Your task to perform on an android device: open sync settings in chrome Image 0: 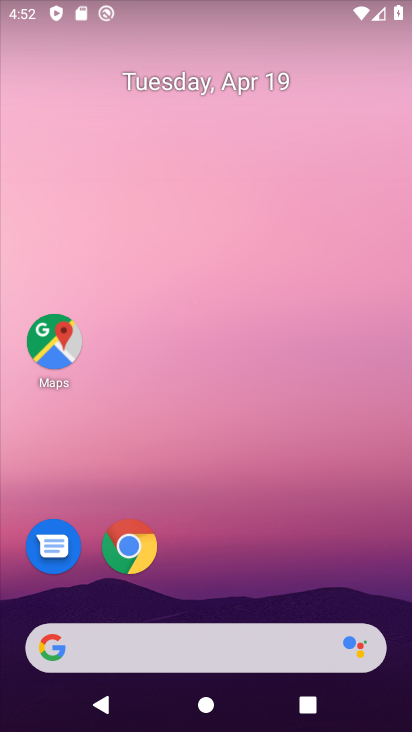
Step 0: drag from (312, 417) to (275, 6)
Your task to perform on an android device: open sync settings in chrome Image 1: 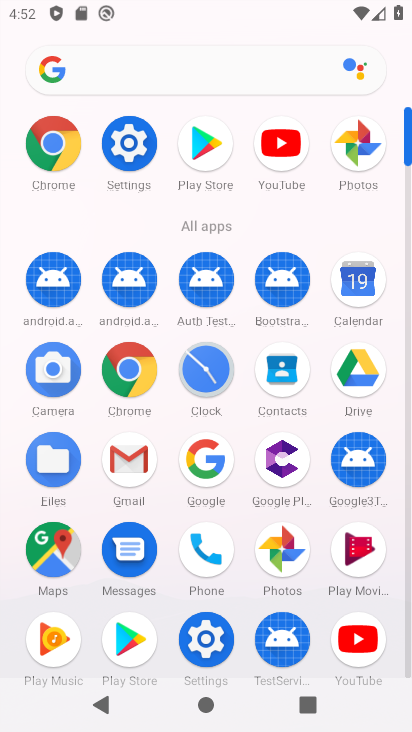
Step 1: click (56, 151)
Your task to perform on an android device: open sync settings in chrome Image 2: 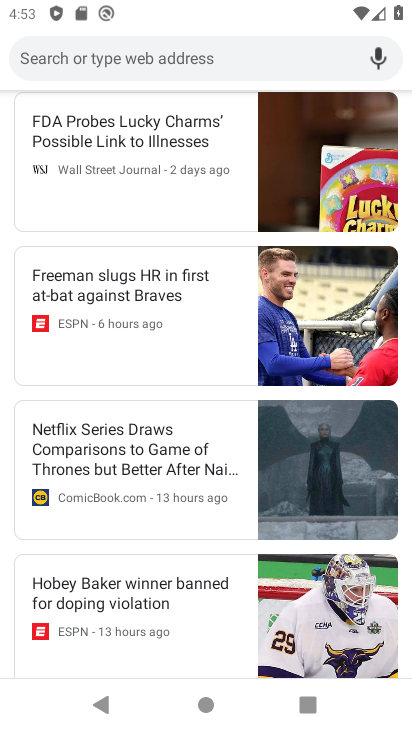
Step 2: drag from (191, 327) to (215, 595)
Your task to perform on an android device: open sync settings in chrome Image 3: 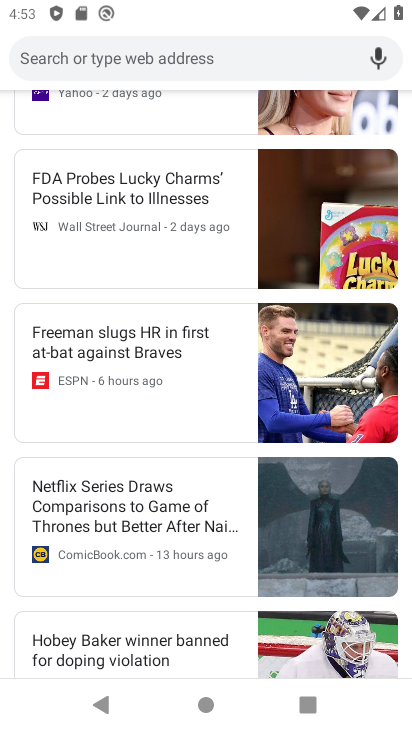
Step 3: drag from (113, 149) to (178, 541)
Your task to perform on an android device: open sync settings in chrome Image 4: 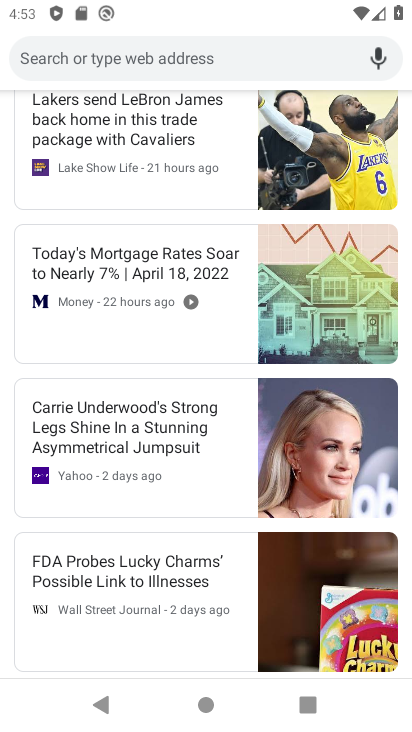
Step 4: drag from (77, 136) to (167, 552)
Your task to perform on an android device: open sync settings in chrome Image 5: 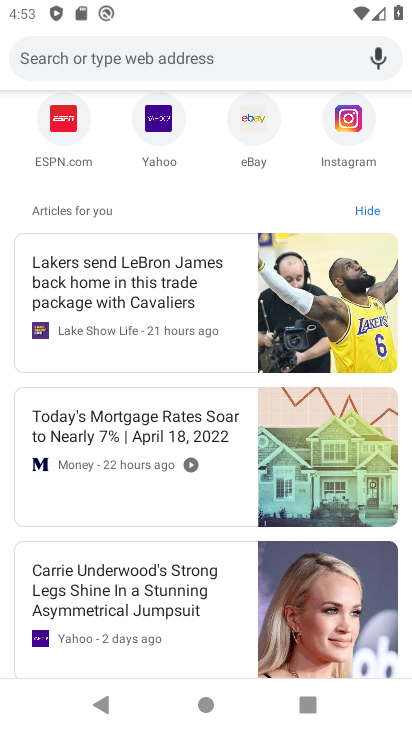
Step 5: drag from (135, 365) to (179, 519)
Your task to perform on an android device: open sync settings in chrome Image 6: 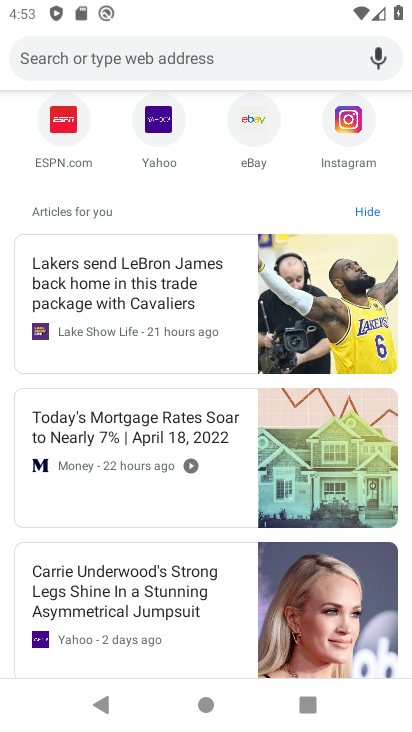
Step 6: drag from (178, 310) to (231, 537)
Your task to perform on an android device: open sync settings in chrome Image 7: 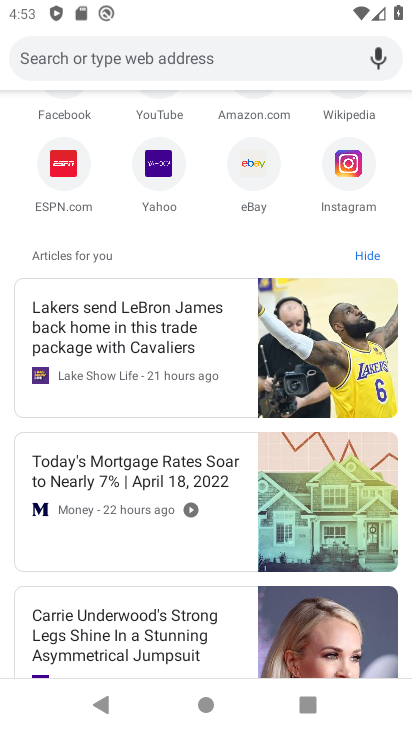
Step 7: drag from (168, 401) to (188, 581)
Your task to perform on an android device: open sync settings in chrome Image 8: 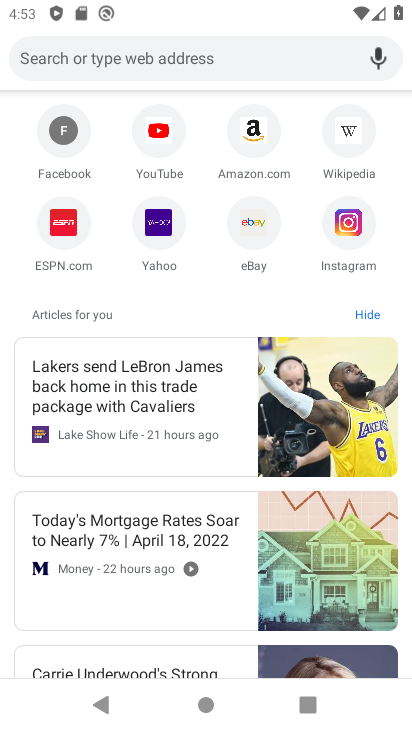
Step 8: drag from (134, 576) to (172, 247)
Your task to perform on an android device: open sync settings in chrome Image 9: 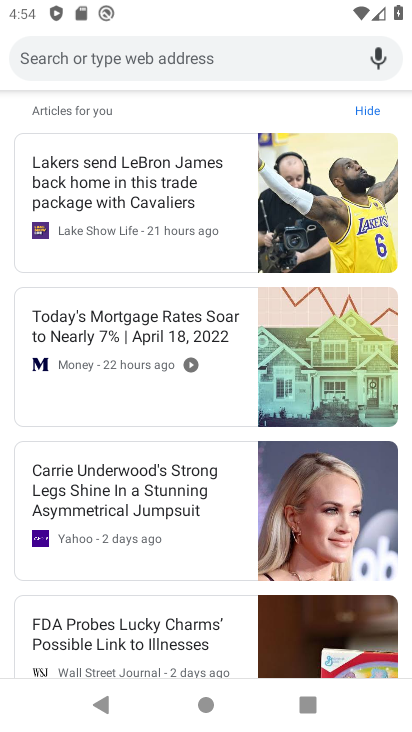
Step 9: drag from (148, 398) to (150, 205)
Your task to perform on an android device: open sync settings in chrome Image 10: 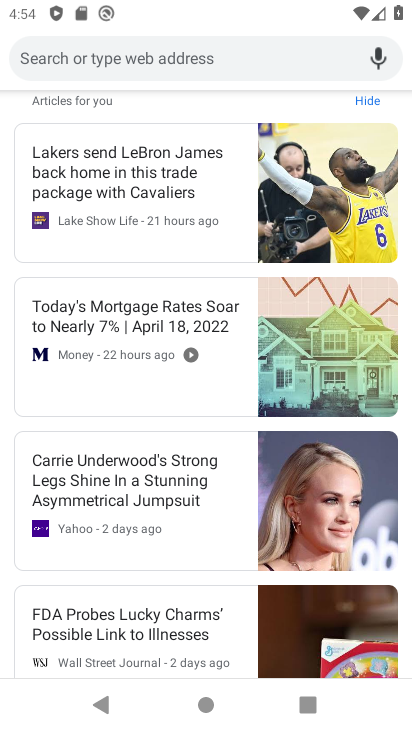
Step 10: drag from (211, 178) to (193, 579)
Your task to perform on an android device: open sync settings in chrome Image 11: 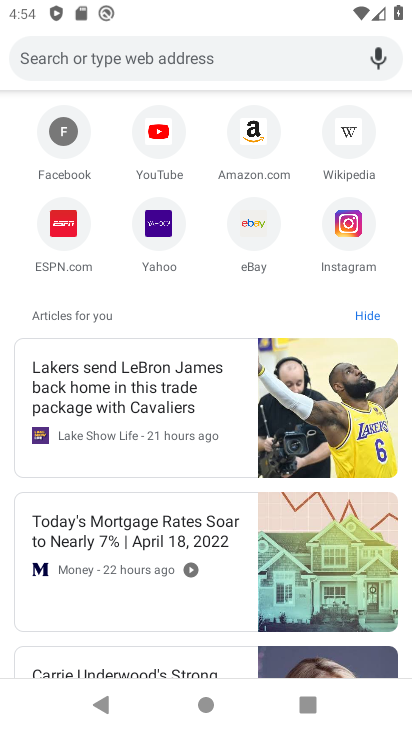
Step 11: drag from (153, 348) to (137, 644)
Your task to perform on an android device: open sync settings in chrome Image 12: 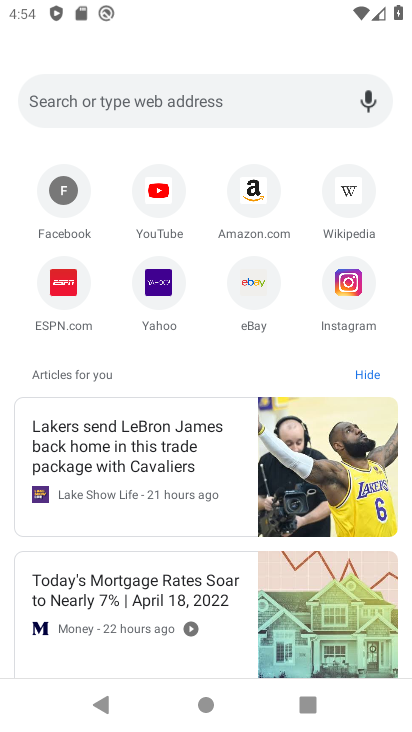
Step 12: drag from (175, 111) to (244, 616)
Your task to perform on an android device: open sync settings in chrome Image 13: 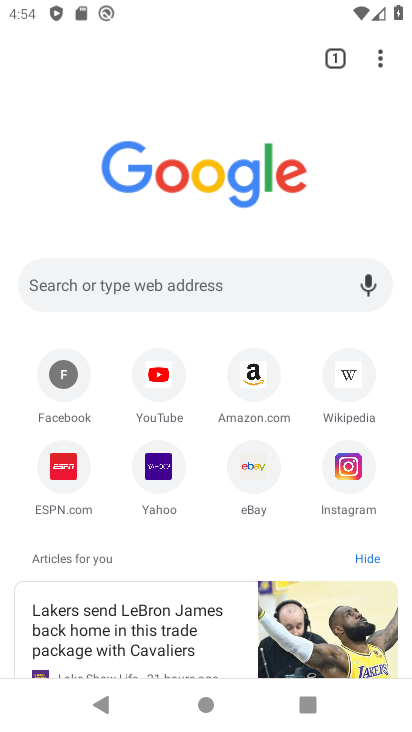
Step 13: click (380, 51)
Your task to perform on an android device: open sync settings in chrome Image 14: 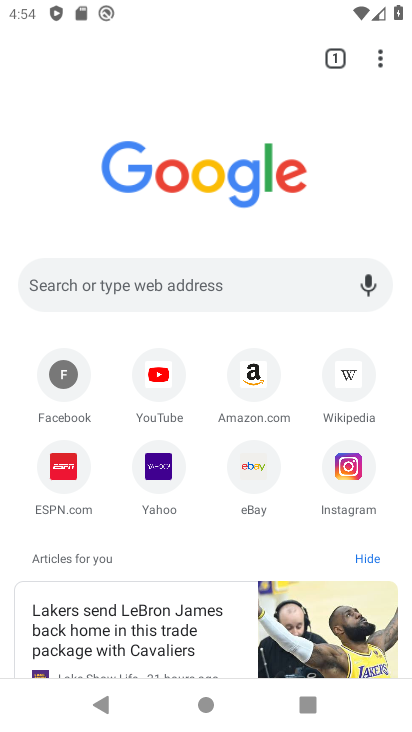
Step 14: drag from (380, 51) to (171, 495)
Your task to perform on an android device: open sync settings in chrome Image 15: 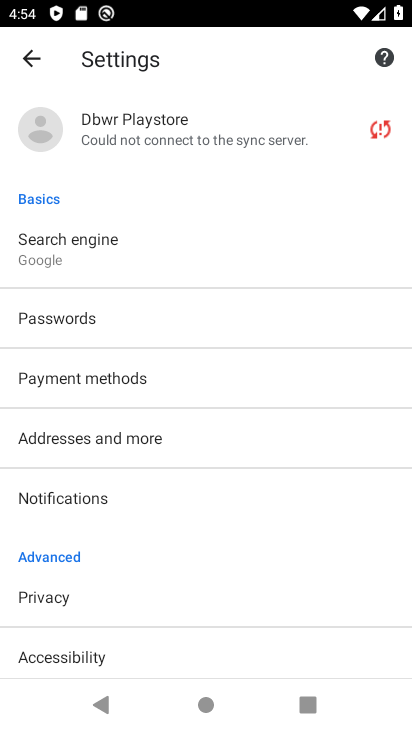
Step 15: drag from (115, 639) to (158, 334)
Your task to perform on an android device: open sync settings in chrome Image 16: 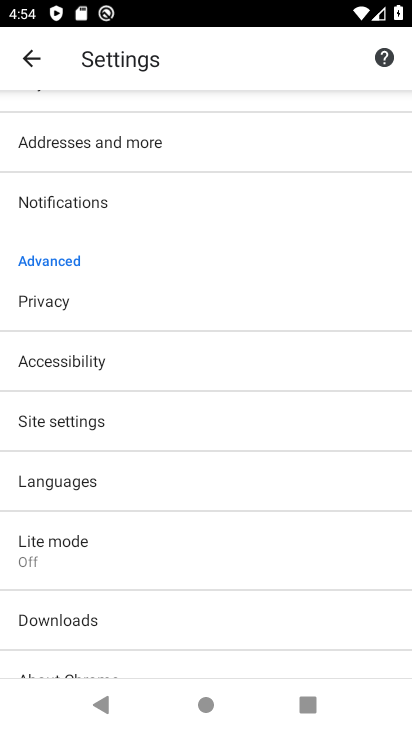
Step 16: drag from (129, 447) to (171, 634)
Your task to perform on an android device: open sync settings in chrome Image 17: 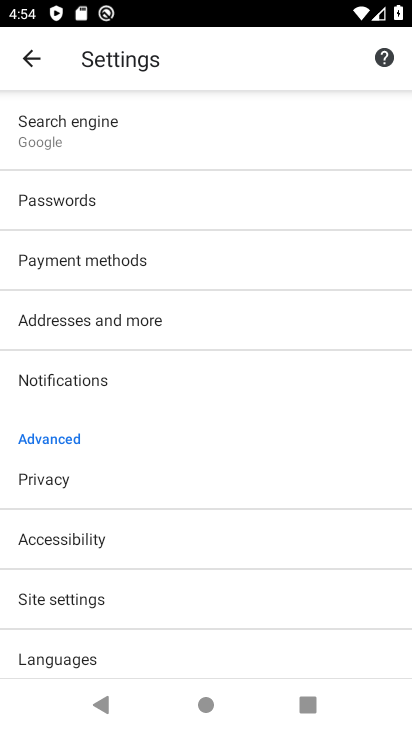
Step 17: drag from (128, 236) to (122, 538)
Your task to perform on an android device: open sync settings in chrome Image 18: 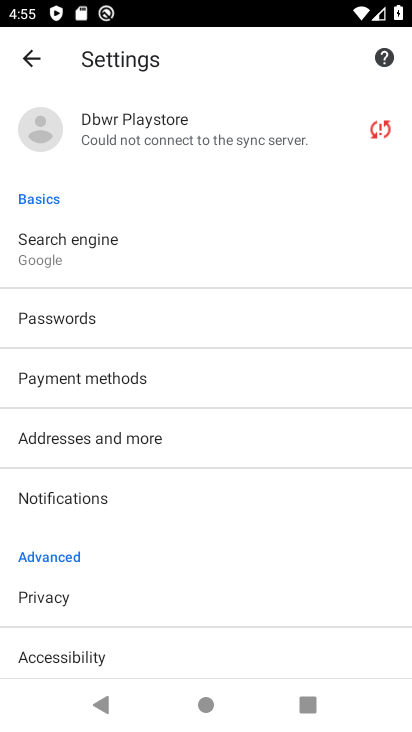
Step 18: drag from (197, 317) to (162, 590)
Your task to perform on an android device: open sync settings in chrome Image 19: 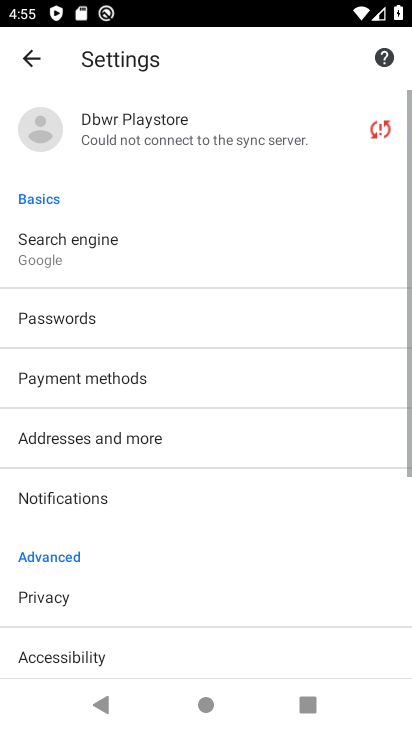
Step 19: drag from (177, 577) to (198, 227)
Your task to perform on an android device: open sync settings in chrome Image 20: 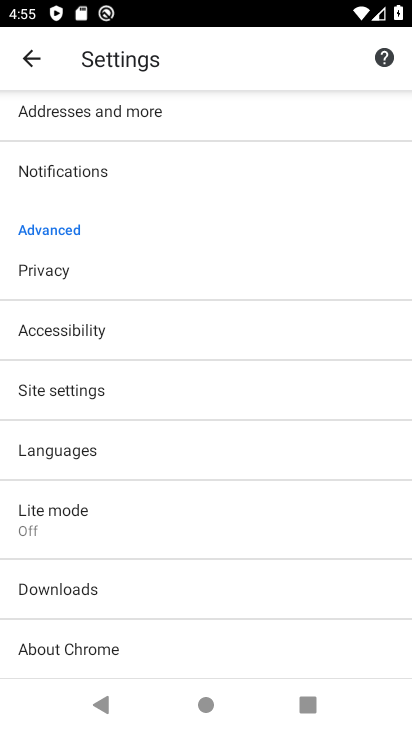
Step 20: drag from (125, 525) to (183, 234)
Your task to perform on an android device: open sync settings in chrome Image 21: 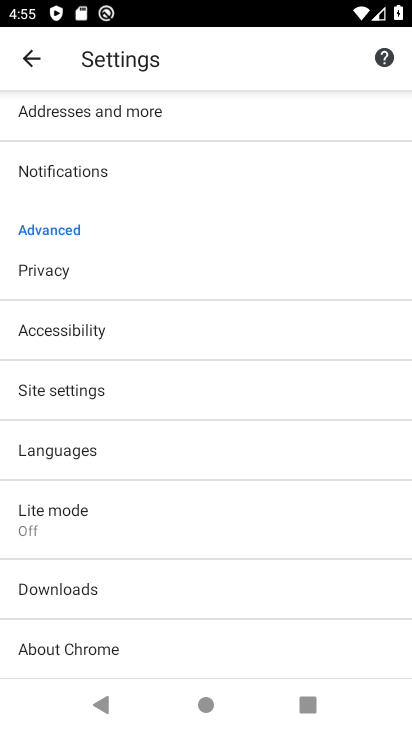
Step 21: click (83, 396)
Your task to perform on an android device: open sync settings in chrome Image 22: 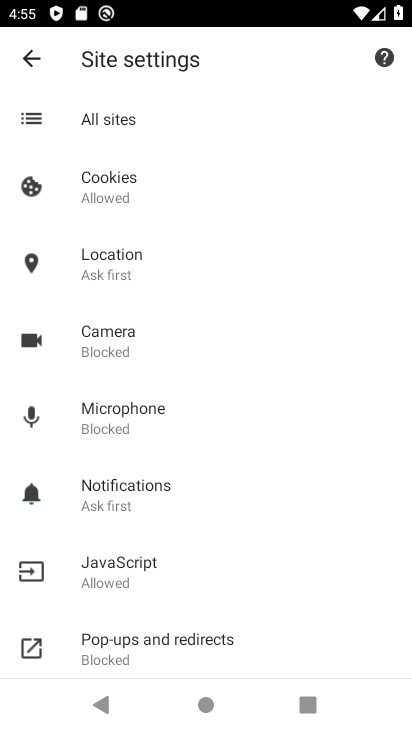
Step 22: drag from (150, 545) to (240, 180)
Your task to perform on an android device: open sync settings in chrome Image 23: 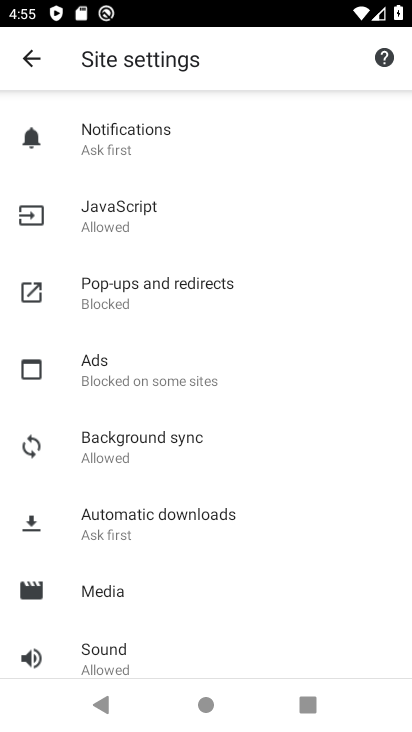
Step 23: click (178, 445)
Your task to perform on an android device: open sync settings in chrome Image 24: 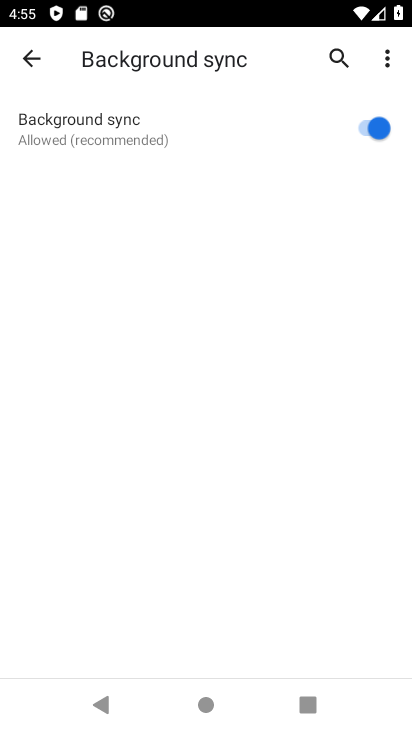
Step 24: task complete